Your task to perform on an android device: change text size in settings app Image 0: 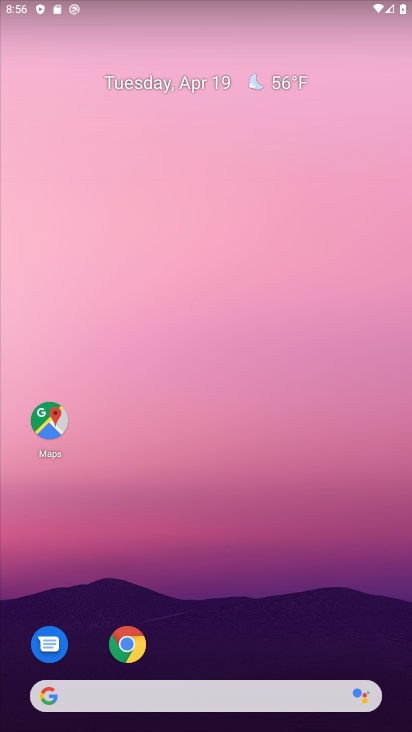
Step 0: drag from (203, 613) to (213, 161)
Your task to perform on an android device: change text size in settings app Image 1: 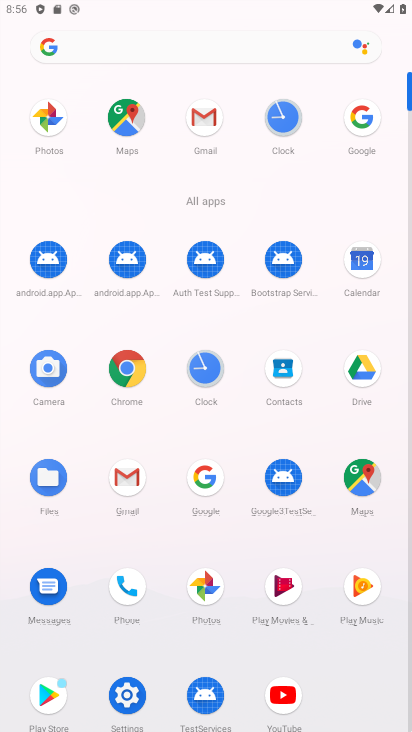
Step 1: click (119, 684)
Your task to perform on an android device: change text size in settings app Image 2: 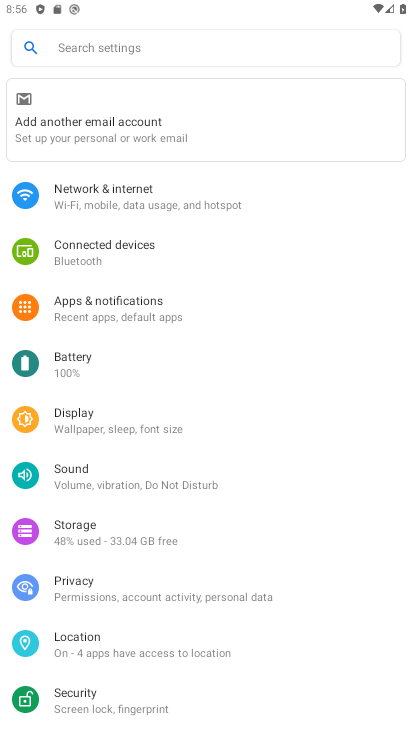
Step 2: click (98, 425)
Your task to perform on an android device: change text size in settings app Image 3: 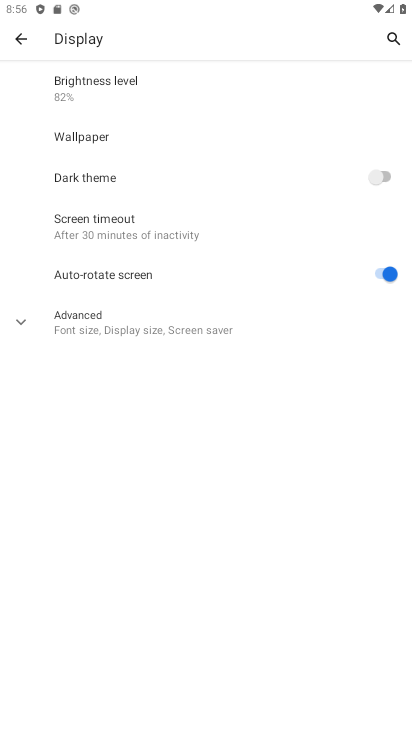
Step 3: click (94, 316)
Your task to perform on an android device: change text size in settings app Image 4: 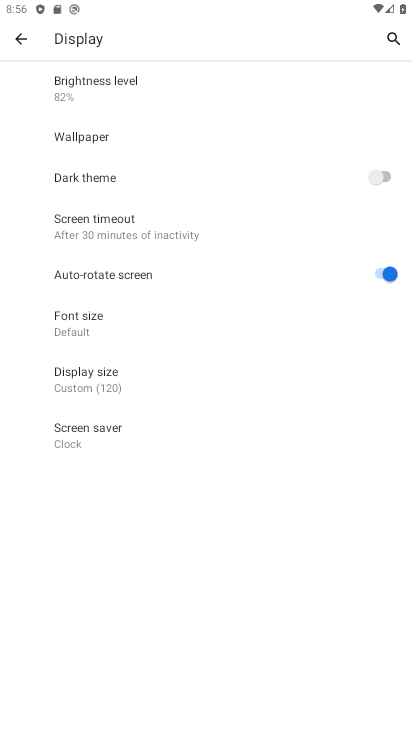
Step 4: click (111, 323)
Your task to perform on an android device: change text size in settings app Image 5: 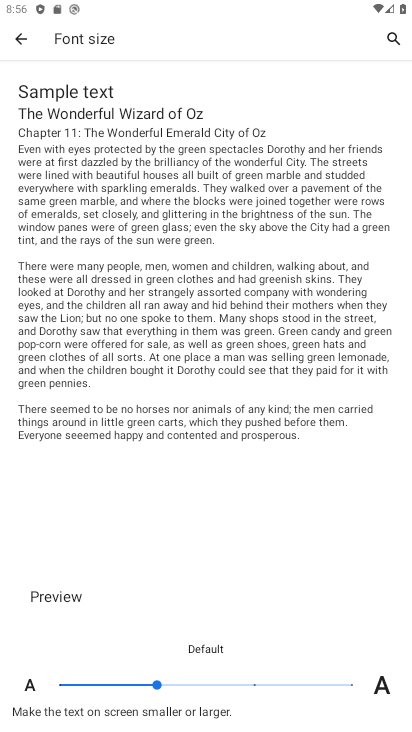
Step 5: click (65, 689)
Your task to perform on an android device: change text size in settings app Image 6: 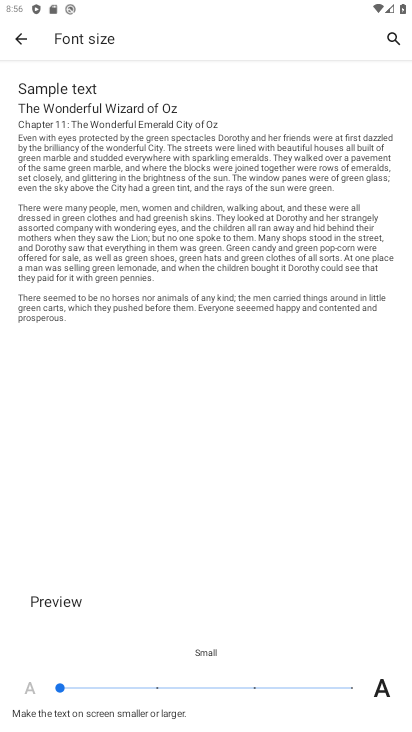
Step 6: task complete